Your task to perform on an android device: Open my contact list Image 0: 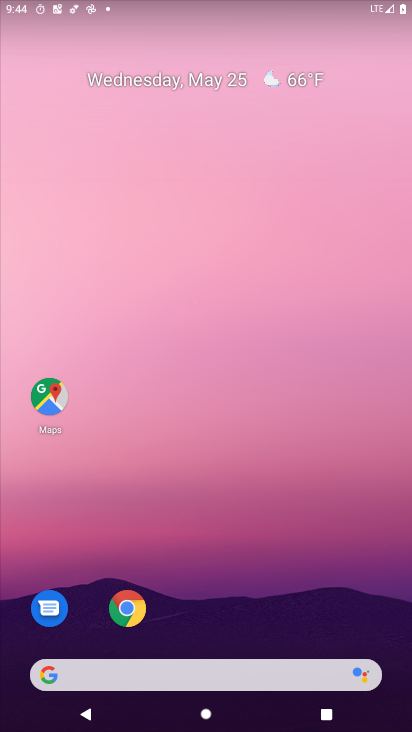
Step 0: drag from (246, 702) to (233, 138)
Your task to perform on an android device: Open my contact list Image 1: 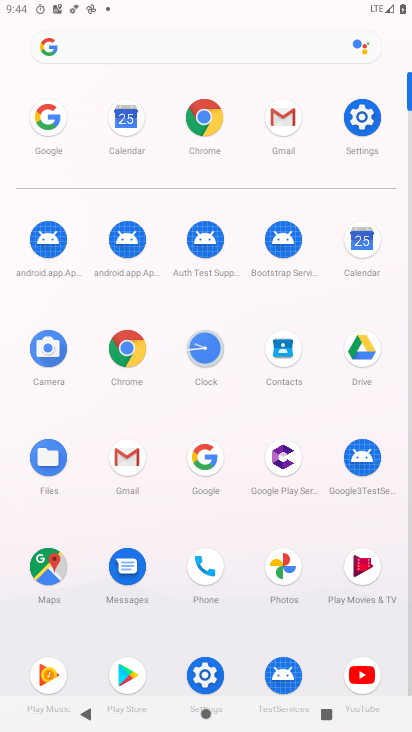
Step 1: click (288, 354)
Your task to perform on an android device: Open my contact list Image 2: 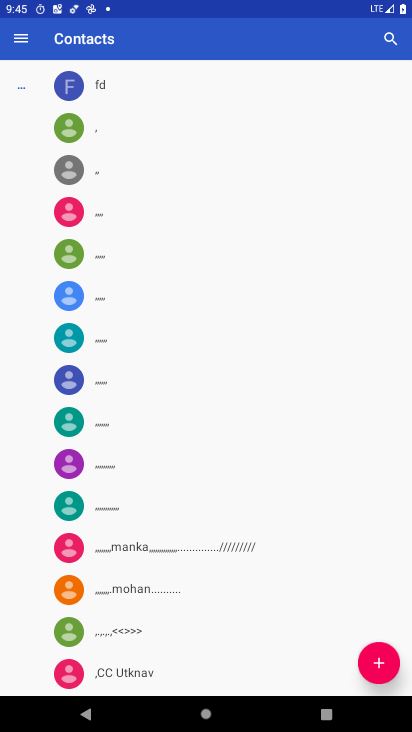
Step 2: task complete